Your task to perform on an android device: Search for vegetarian restaurants on Maps Image 0: 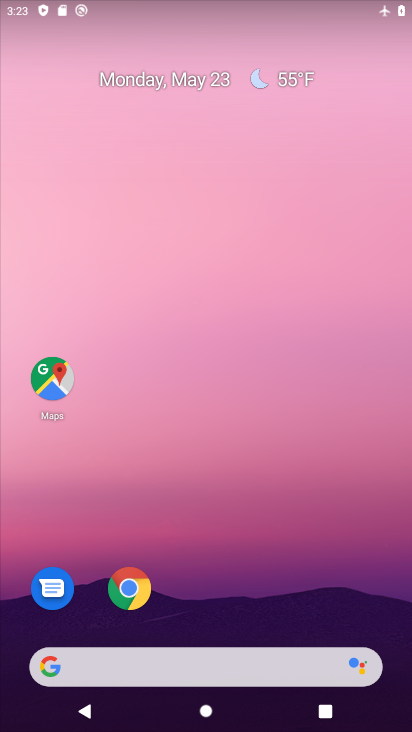
Step 0: drag from (219, 580) to (231, 96)
Your task to perform on an android device: Search for vegetarian restaurants on Maps Image 1: 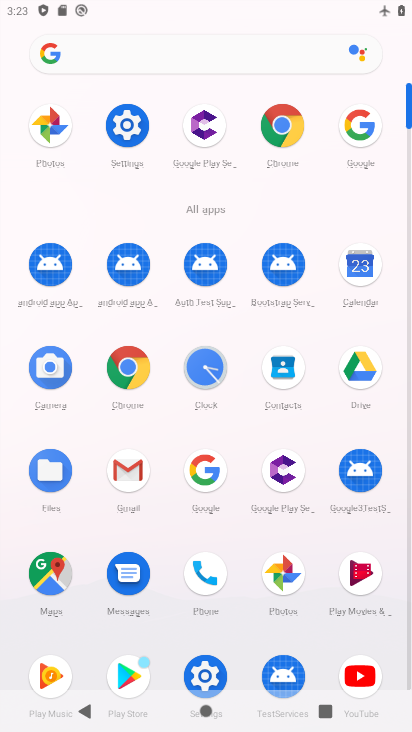
Step 1: click (50, 576)
Your task to perform on an android device: Search for vegetarian restaurants on Maps Image 2: 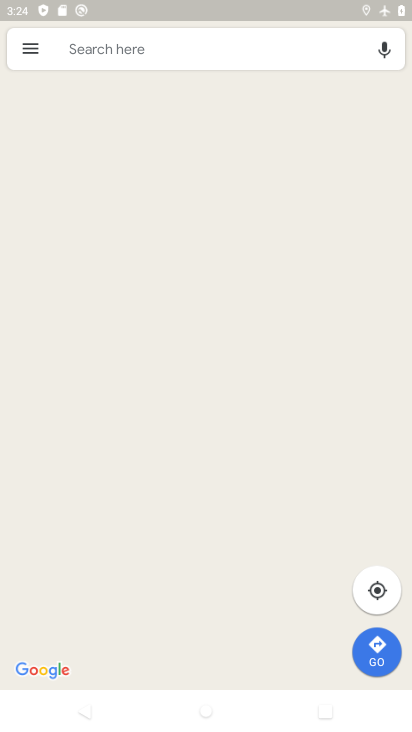
Step 2: click (194, 49)
Your task to perform on an android device: Search for vegetarian restaurants on Maps Image 3: 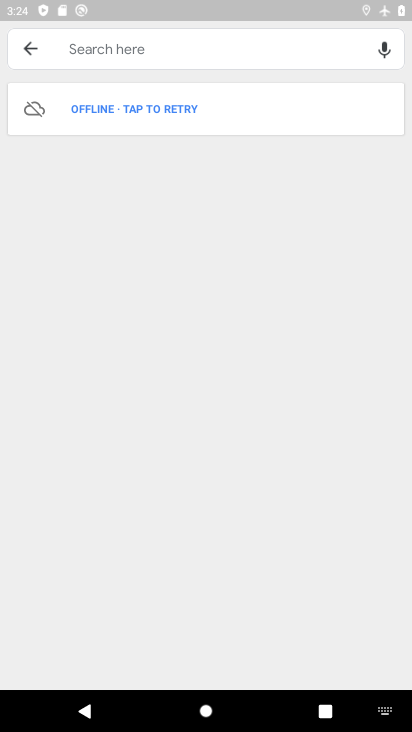
Step 3: task complete